Your task to perform on an android device: open app "Fetch Rewards" (install if not already installed) Image 0: 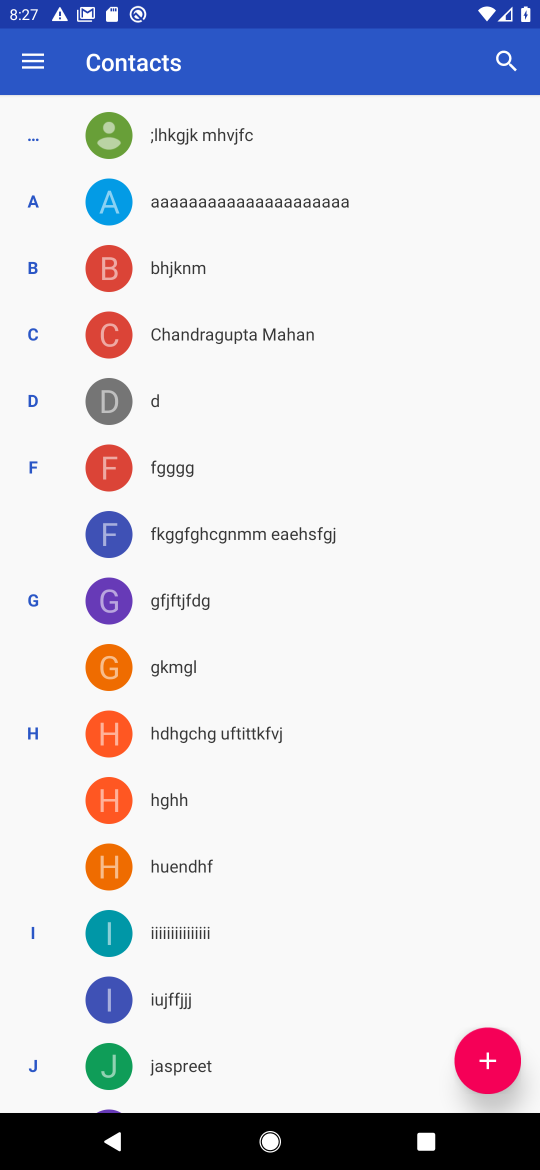
Step 0: press back button
Your task to perform on an android device: open app "Fetch Rewards" (install if not already installed) Image 1: 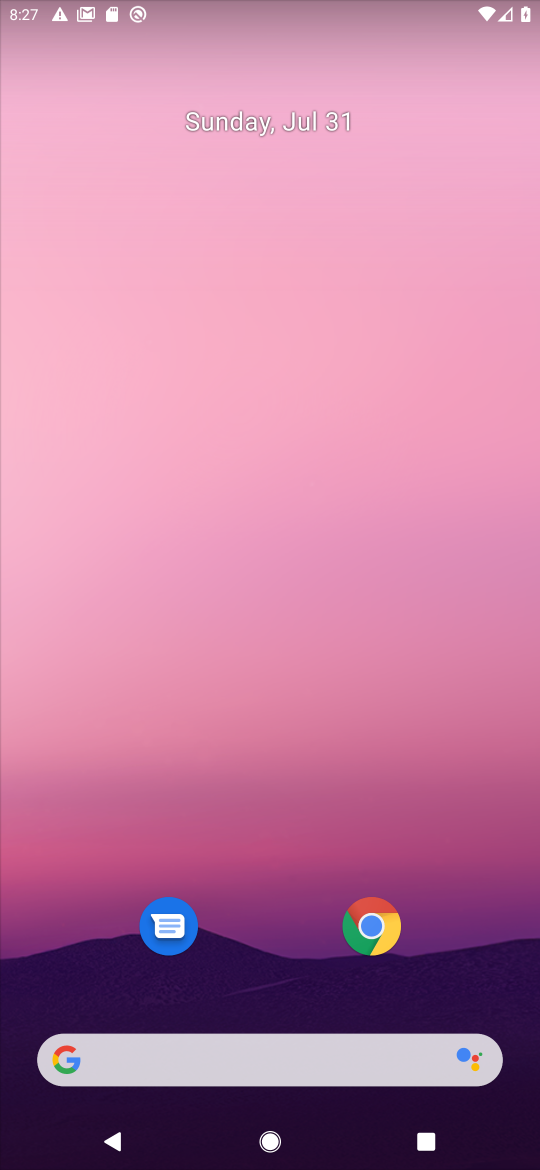
Step 1: drag from (263, 942) to (313, 16)
Your task to perform on an android device: open app "Fetch Rewards" (install if not already installed) Image 2: 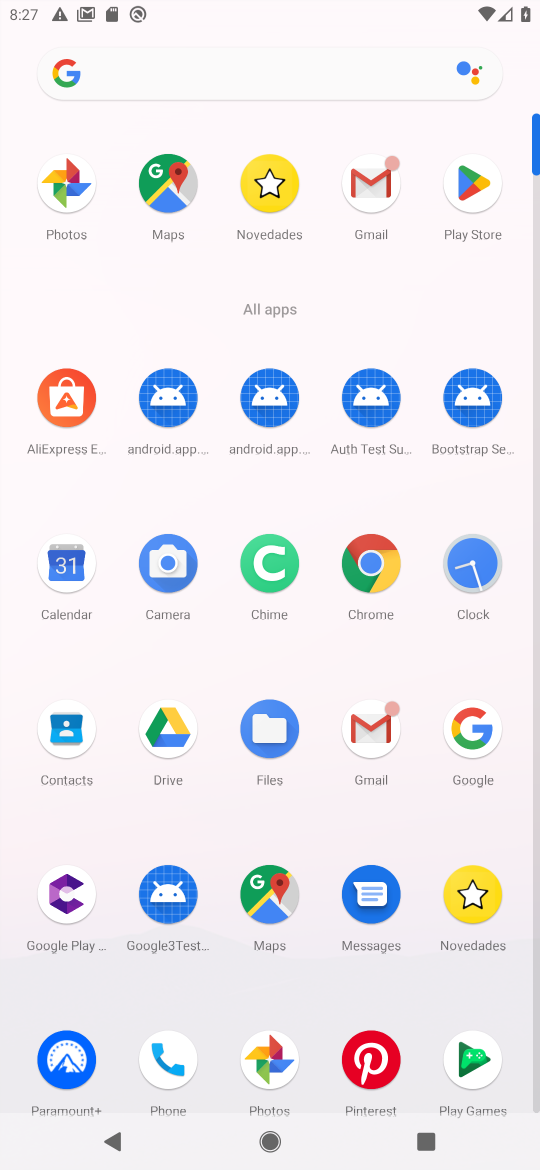
Step 2: click (469, 189)
Your task to perform on an android device: open app "Fetch Rewards" (install if not already installed) Image 3: 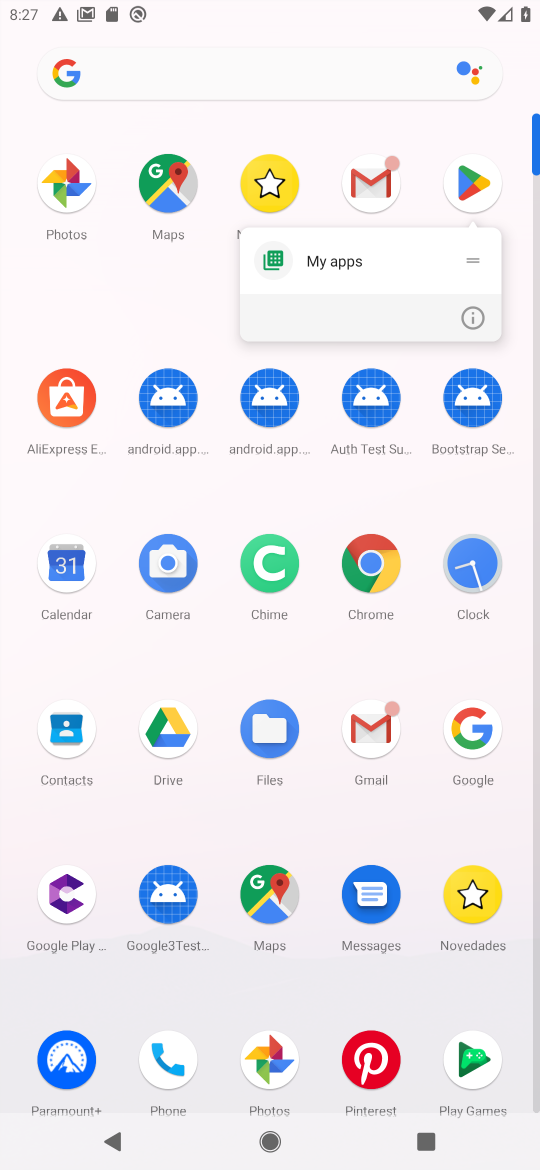
Step 3: click (466, 198)
Your task to perform on an android device: open app "Fetch Rewards" (install if not already installed) Image 4: 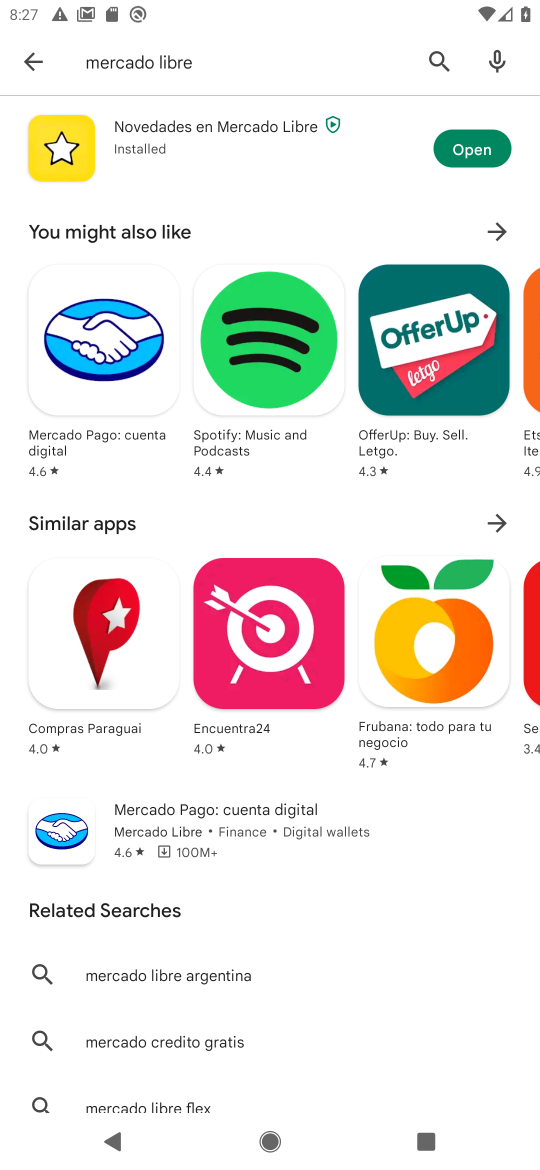
Step 4: click (440, 51)
Your task to perform on an android device: open app "Fetch Rewards" (install if not already installed) Image 5: 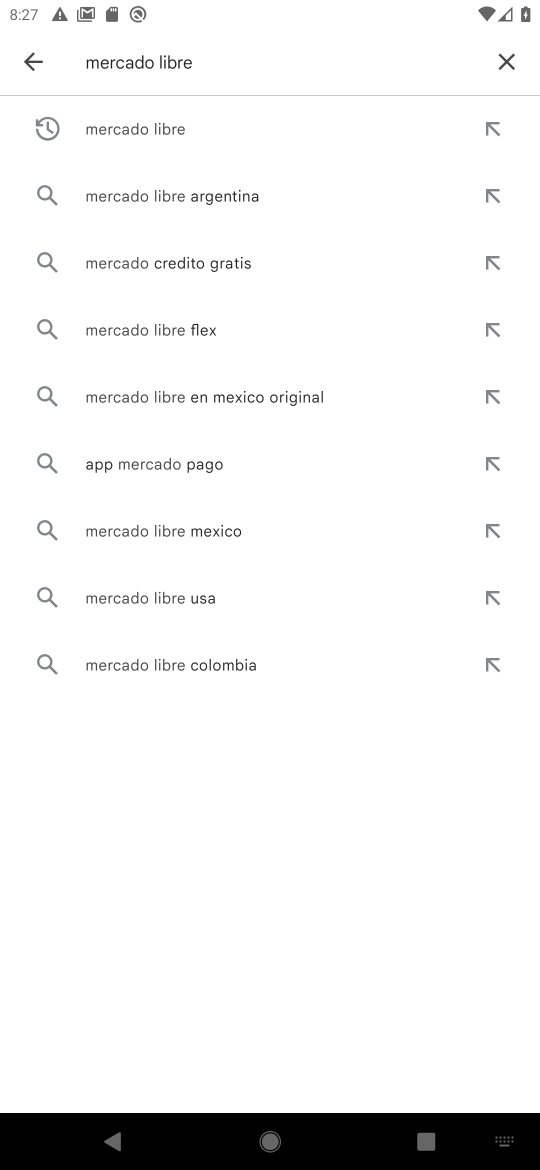
Step 5: click (506, 63)
Your task to perform on an android device: open app "Fetch Rewards" (install if not already installed) Image 6: 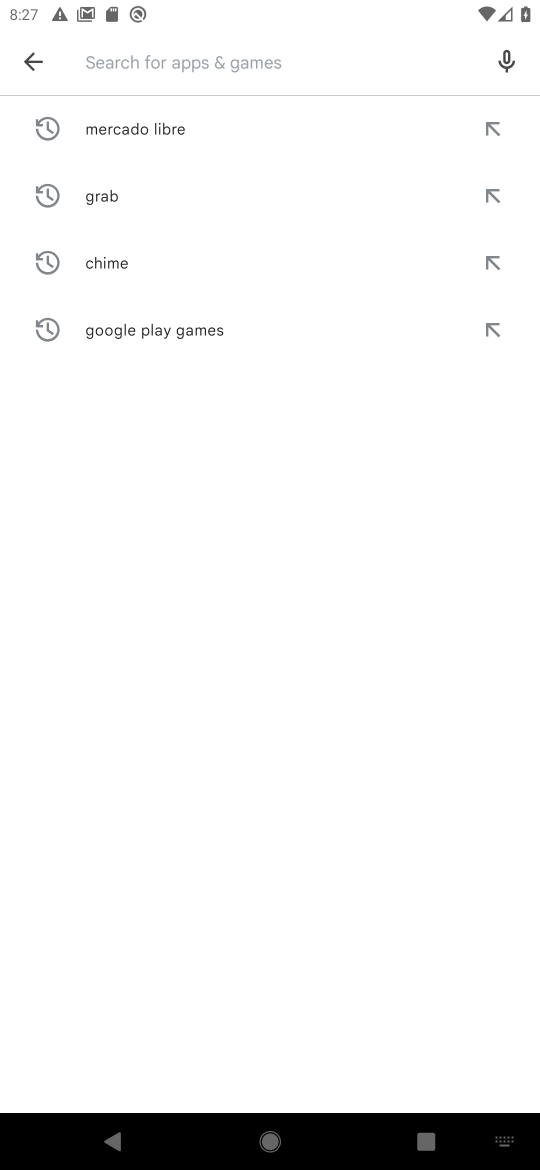
Step 6: click (209, 59)
Your task to perform on an android device: open app "Fetch Rewards" (install if not already installed) Image 7: 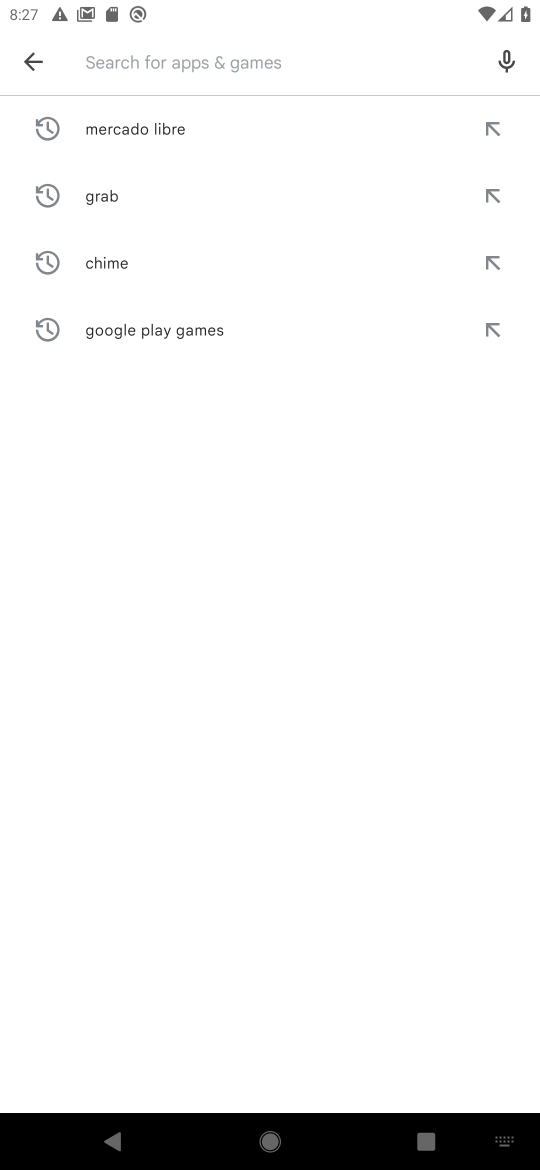
Step 7: type "fetch rewards"
Your task to perform on an android device: open app "Fetch Rewards" (install if not already installed) Image 8: 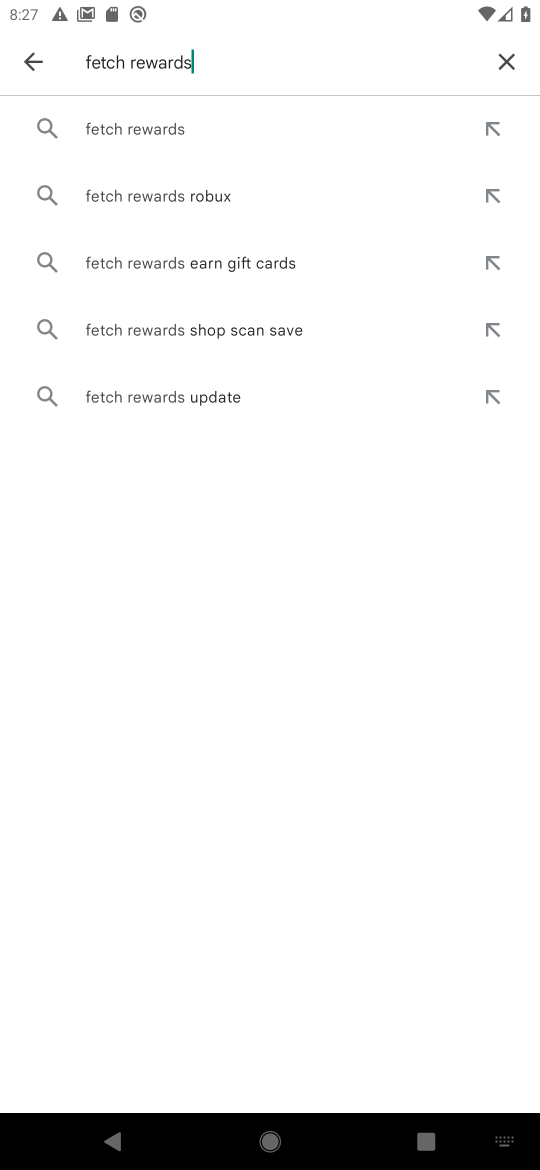
Step 8: click (95, 142)
Your task to perform on an android device: open app "Fetch Rewards" (install if not already installed) Image 9: 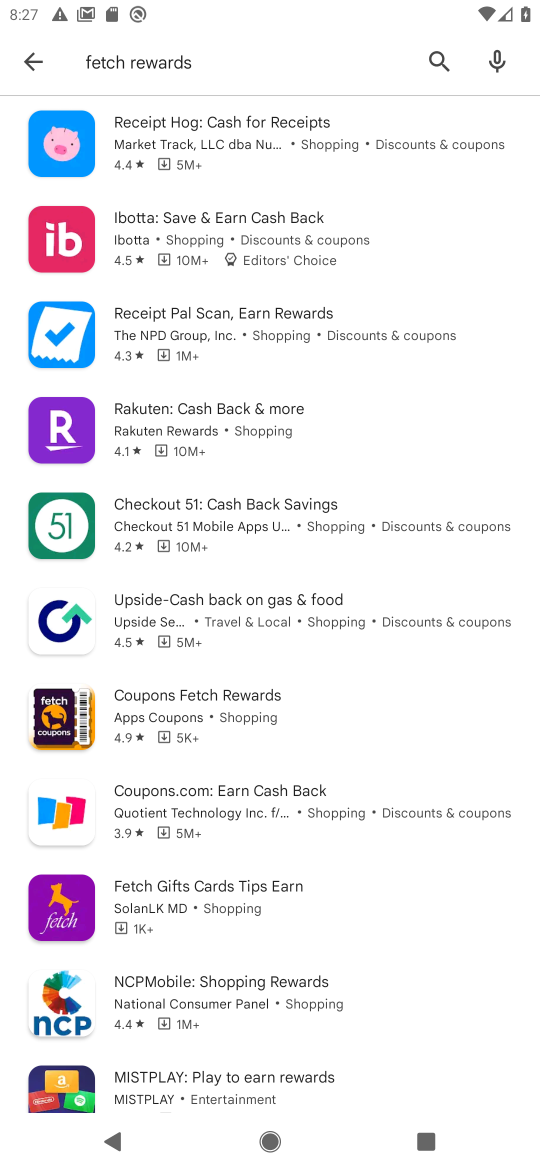
Step 9: task complete